Your task to perform on an android device: Open location settings Image 0: 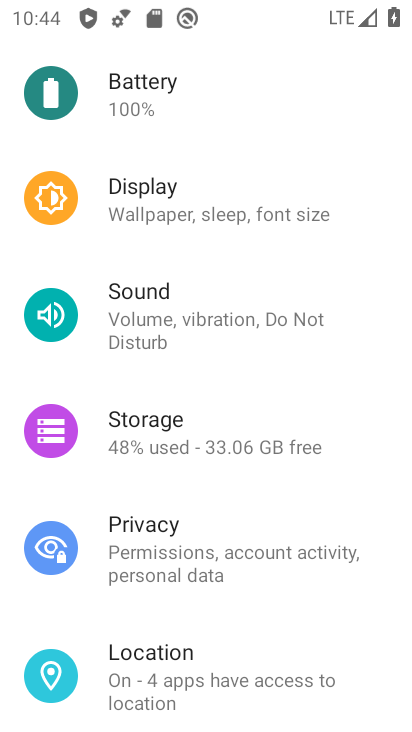
Step 0: click (212, 656)
Your task to perform on an android device: Open location settings Image 1: 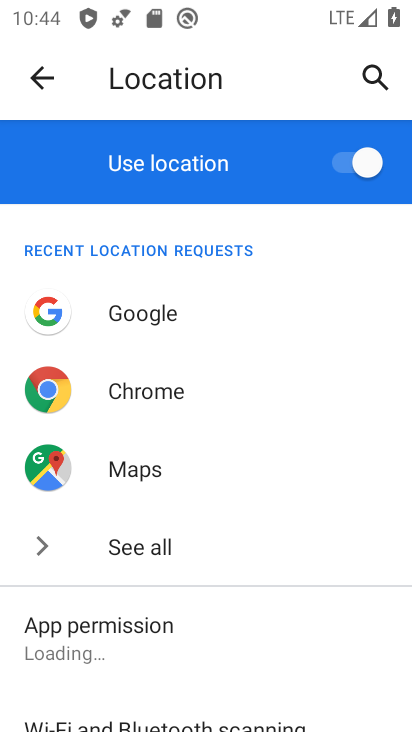
Step 1: task complete